Your task to perform on an android device: toggle translation in the chrome app Image 0: 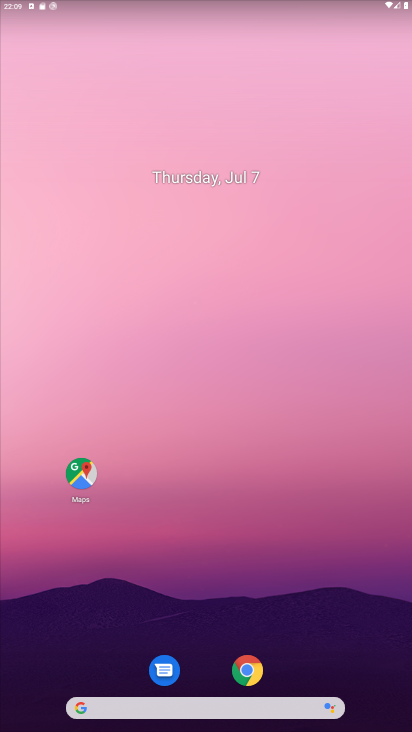
Step 0: task impossible